Your task to perform on an android device: Do I have any events this weekend? Image 0: 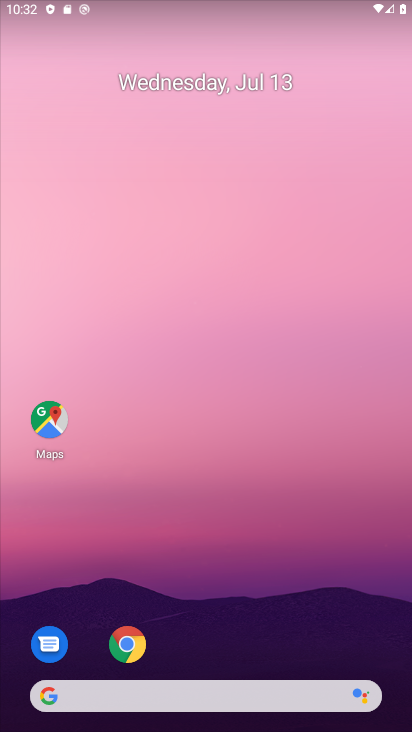
Step 0: drag from (218, 593) to (147, 153)
Your task to perform on an android device: Do I have any events this weekend? Image 1: 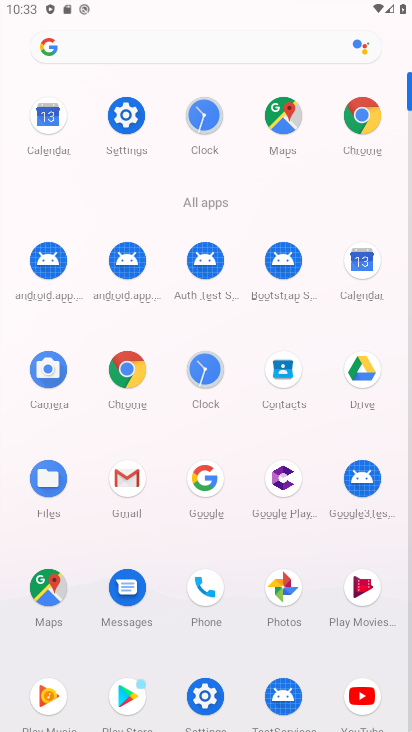
Step 1: click (361, 260)
Your task to perform on an android device: Do I have any events this weekend? Image 2: 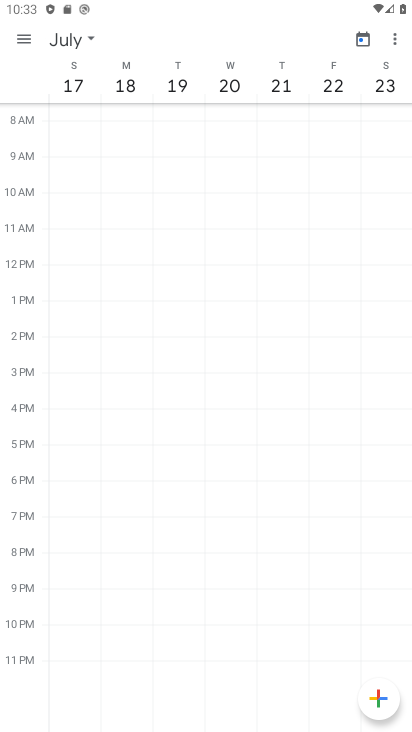
Step 2: click (88, 34)
Your task to perform on an android device: Do I have any events this weekend? Image 3: 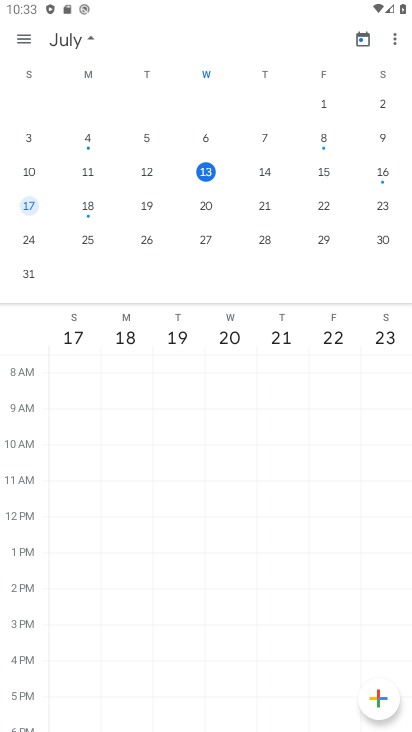
Step 3: click (145, 178)
Your task to perform on an android device: Do I have any events this weekend? Image 4: 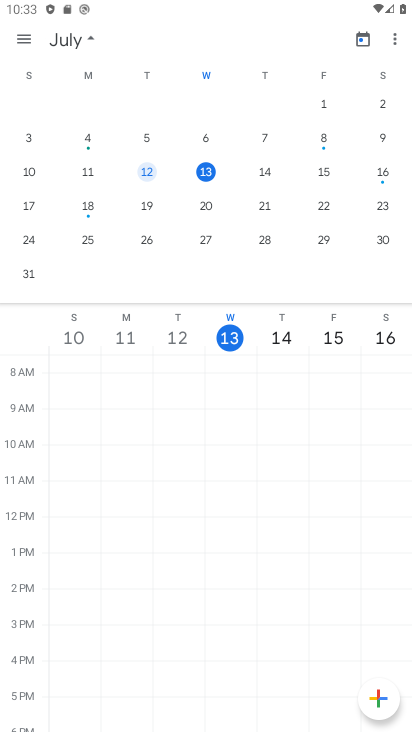
Step 4: task complete